Your task to perform on an android device: install app "Facebook Messenger" Image 0: 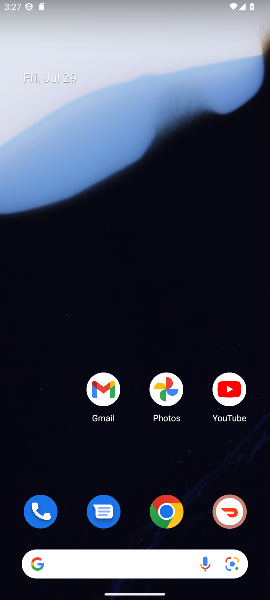
Step 0: drag from (12, 583) to (205, 124)
Your task to perform on an android device: install app "Facebook Messenger" Image 1: 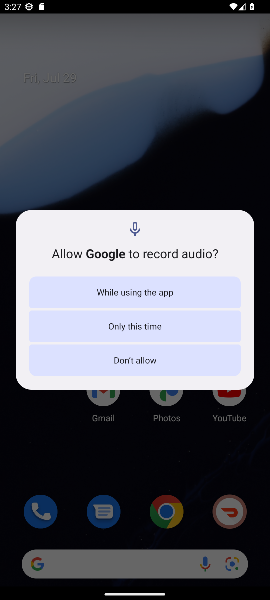
Step 1: click (144, 367)
Your task to perform on an android device: install app "Facebook Messenger" Image 2: 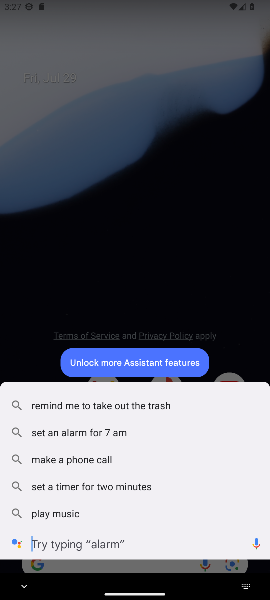
Step 2: click (53, 308)
Your task to perform on an android device: install app "Facebook Messenger" Image 3: 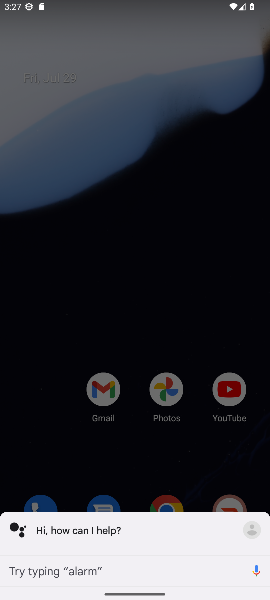
Step 3: click (86, 350)
Your task to perform on an android device: install app "Facebook Messenger" Image 4: 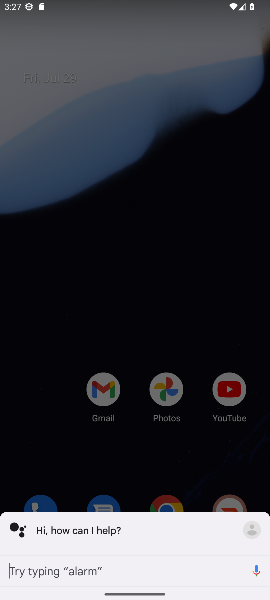
Step 4: click (86, 348)
Your task to perform on an android device: install app "Facebook Messenger" Image 5: 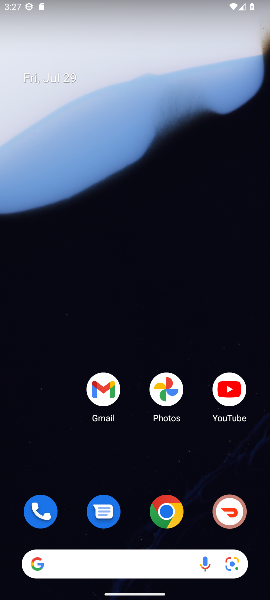
Step 5: drag from (128, 481) to (121, 188)
Your task to perform on an android device: install app "Facebook Messenger" Image 6: 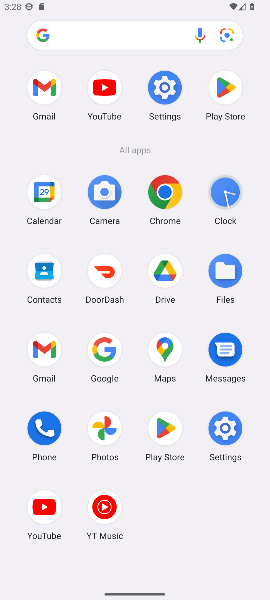
Step 6: click (168, 430)
Your task to perform on an android device: install app "Facebook Messenger" Image 7: 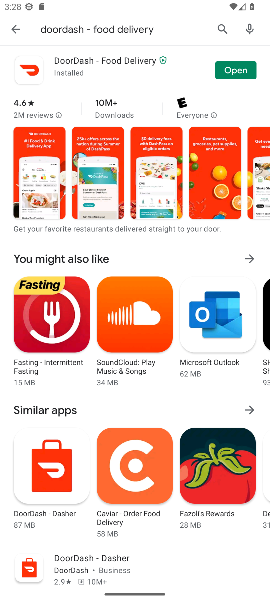
Step 7: click (16, 30)
Your task to perform on an android device: install app "Facebook Messenger" Image 8: 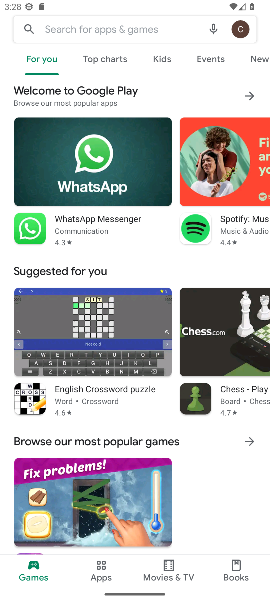
Step 8: click (65, 19)
Your task to perform on an android device: install app "Facebook Messenger" Image 9: 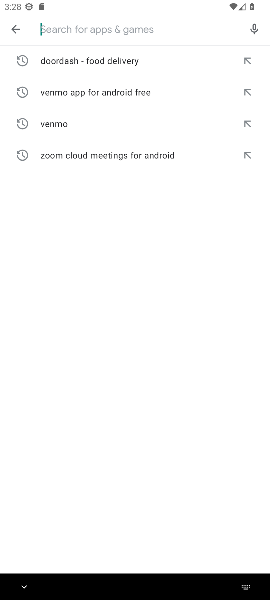
Step 9: click (64, 26)
Your task to perform on an android device: install app "Facebook Messenger" Image 10: 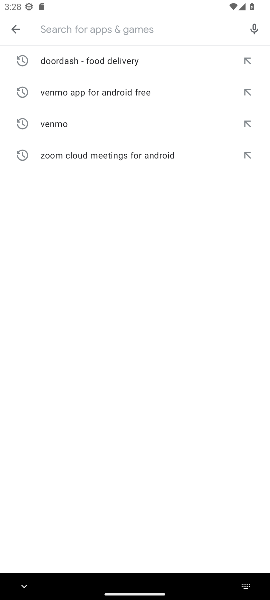
Step 10: type "Facebook Messenger"
Your task to perform on an android device: install app "Facebook Messenger" Image 11: 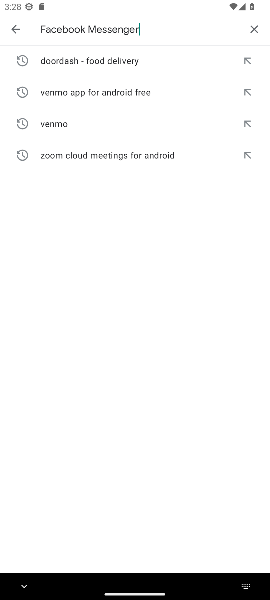
Step 11: type ""
Your task to perform on an android device: install app "Facebook Messenger" Image 12: 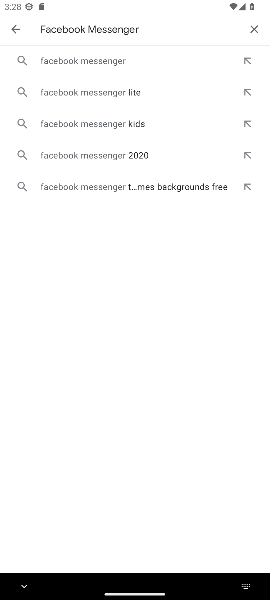
Step 12: click (88, 59)
Your task to perform on an android device: install app "Facebook Messenger" Image 13: 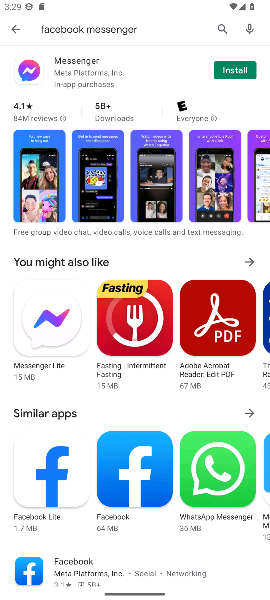
Step 13: click (230, 65)
Your task to perform on an android device: install app "Facebook Messenger" Image 14: 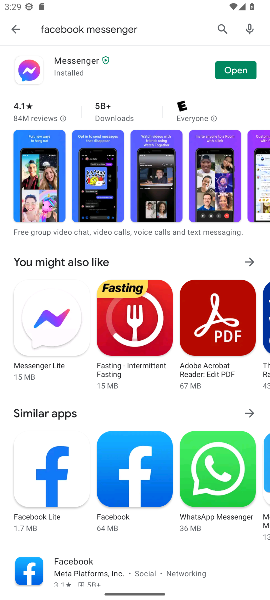
Step 14: click (227, 72)
Your task to perform on an android device: install app "Facebook Messenger" Image 15: 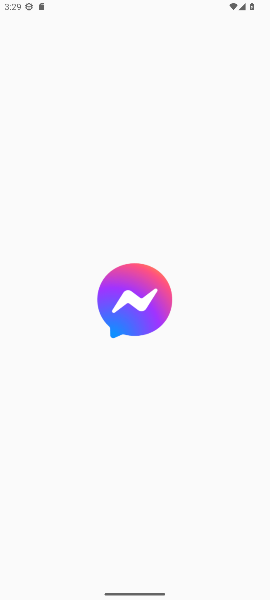
Step 15: task complete